Your task to perform on an android device: turn off sleep mode Image 0: 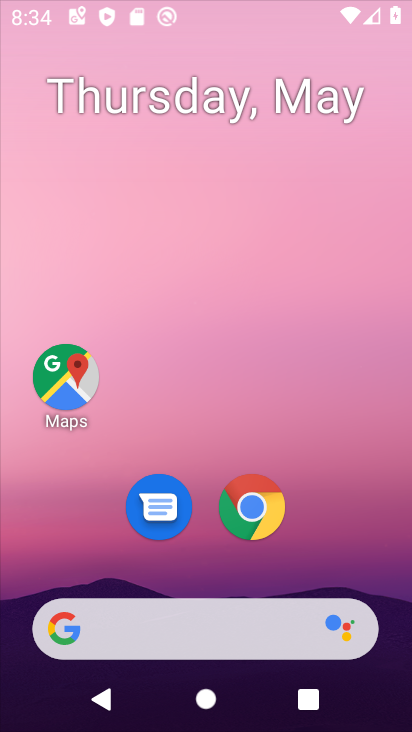
Step 0: press home button
Your task to perform on an android device: turn off sleep mode Image 1: 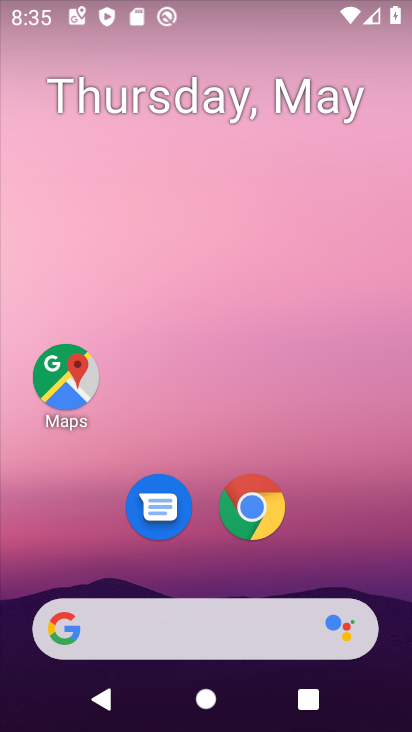
Step 1: drag from (267, 703) to (239, 312)
Your task to perform on an android device: turn off sleep mode Image 2: 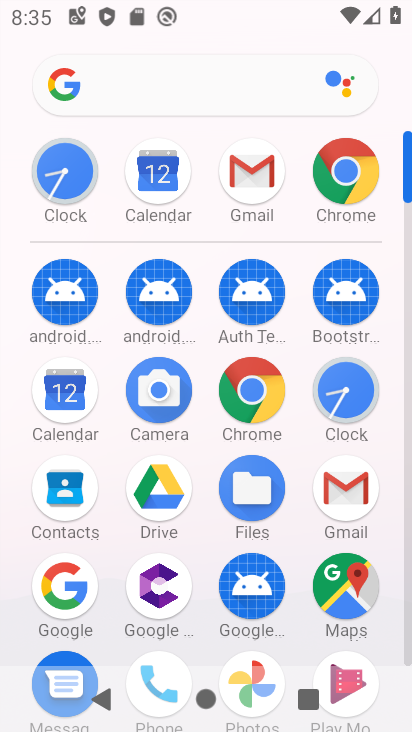
Step 2: drag from (197, 531) to (298, 140)
Your task to perform on an android device: turn off sleep mode Image 3: 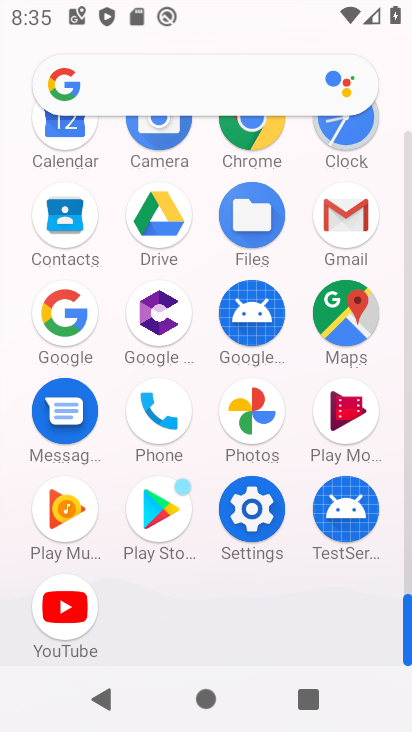
Step 3: click (254, 508)
Your task to perform on an android device: turn off sleep mode Image 4: 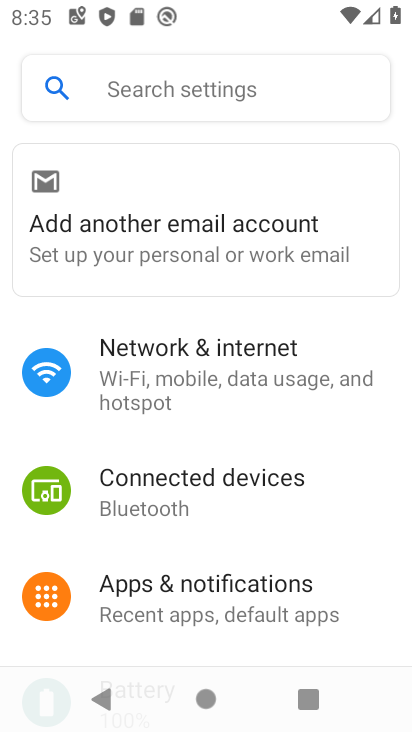
Step 4: click (204, 93)
Your task to perform on an android device: turn off sleep mode Image 5: 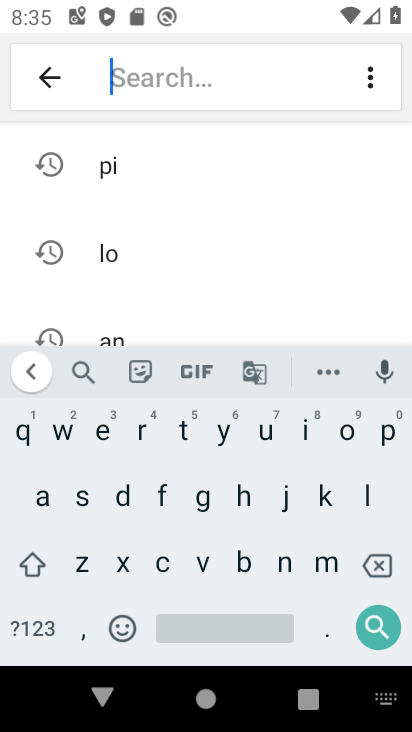
Step 5: click (82, 491)
Your task to perform on an android device: turn off sleep mode Image 6: 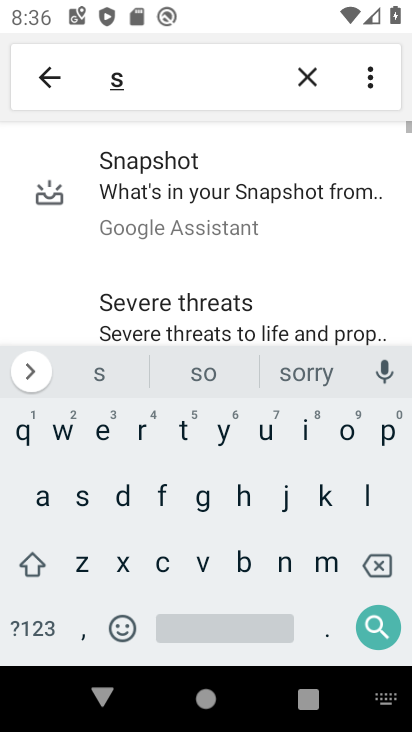
Step 6: click (362, 485)
Your task to perform on an android device: turn off sleep mode Image 7: 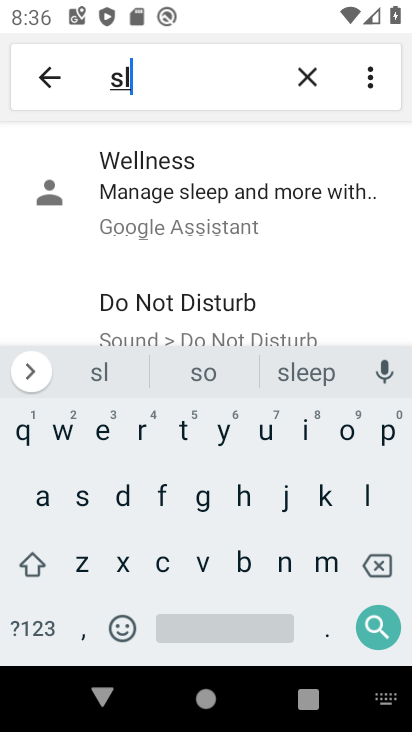
Step 7: click (212, 227)
Your task to perform on an android device: turn off sleep mode Image 8: 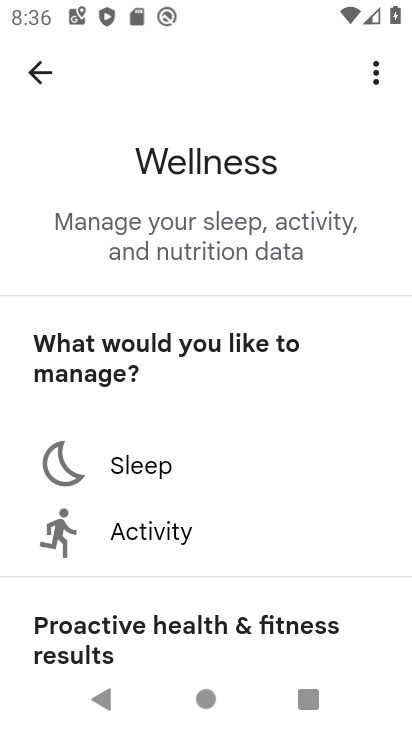
Step 8: click (176, 468)
Your task to perform on an android device: turn off sleep mode Image 9: 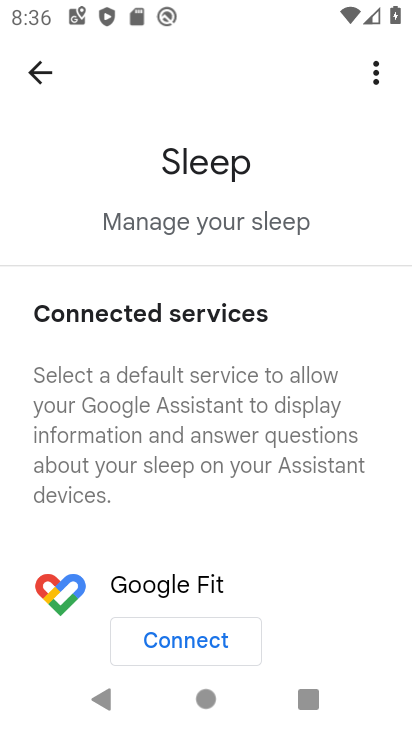
Step 9: task complete